Your task to perform on an android device: change timer sound Image 0: 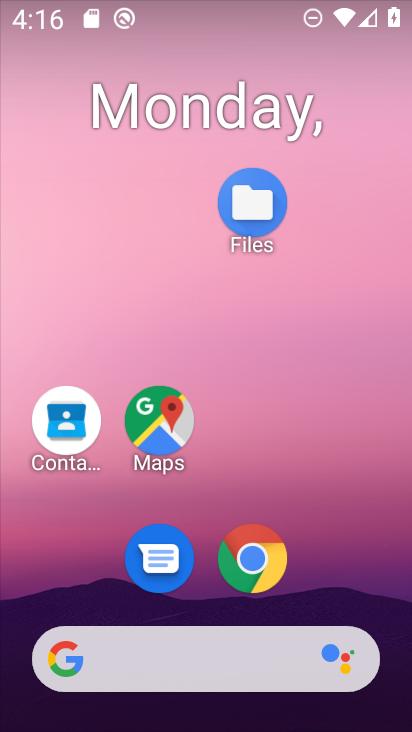
Step 0: drag from (283, 673) to (258, 132)
Your task to perform on an android device: change timer sound Image 1: 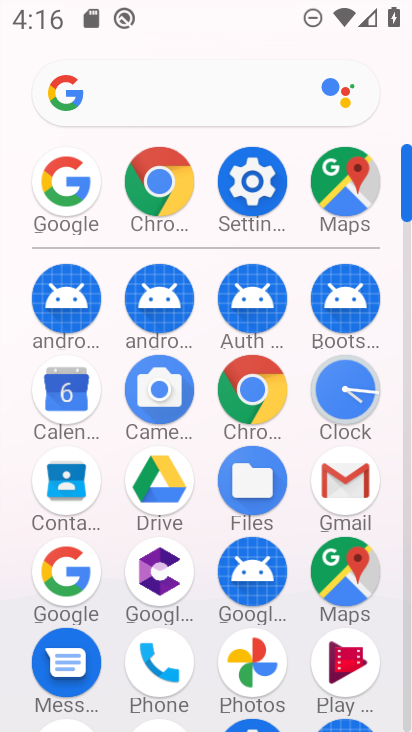
Step 1: click (357, 422)
Your task to perform on an android device: change timer sound Image 2: 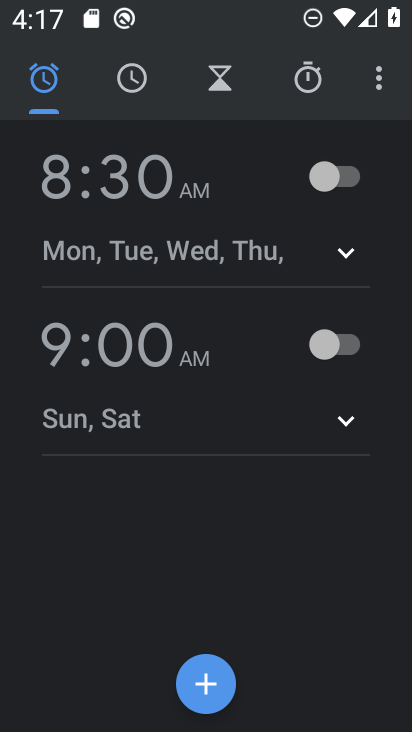
Step 2: click (376, 89)
Your task to perform on an android device: change timer sound Image 3: 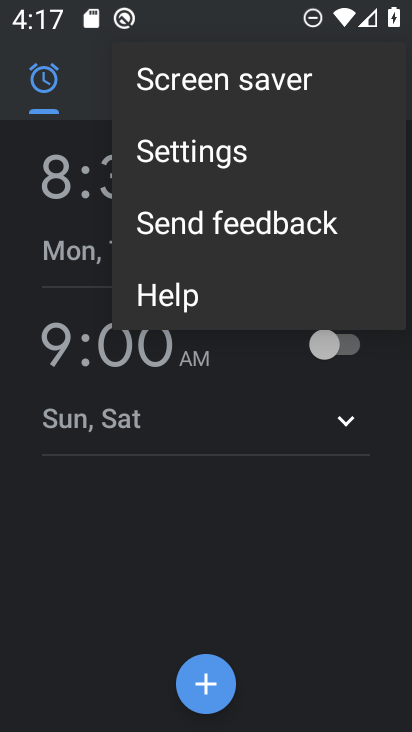
Step 3: click (246, 164)
Your task to perform on an android device: change timer sound Image 4: 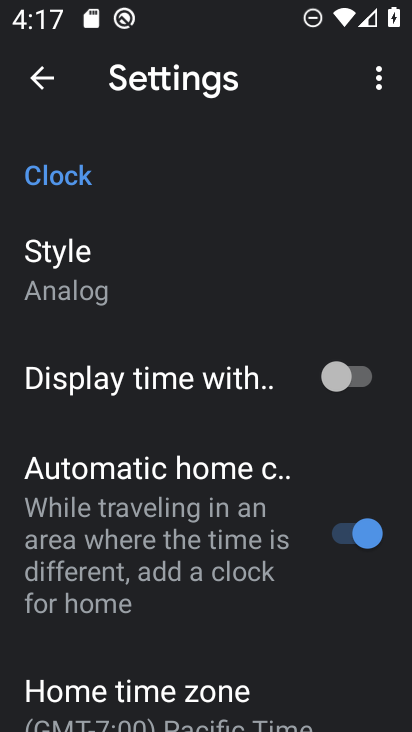
Step 4: drag from (185, 560) to (196, 225)
Your task to perform on an android device: change timer sound Image 5: 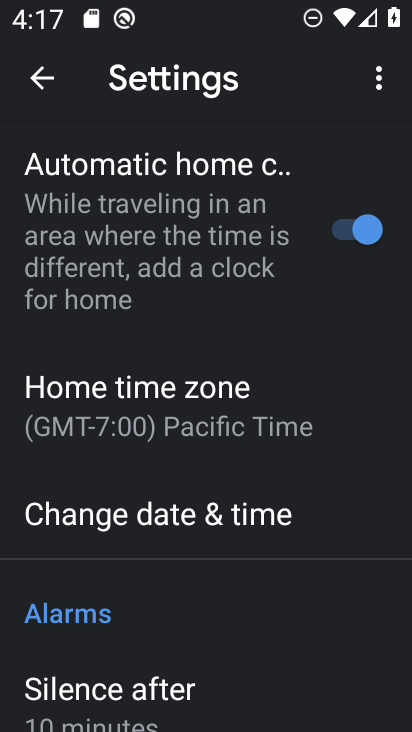
Step 5: drag from (226, 574) to (200, 366)
Your task to perform on an android device: change timer sound Image 6: 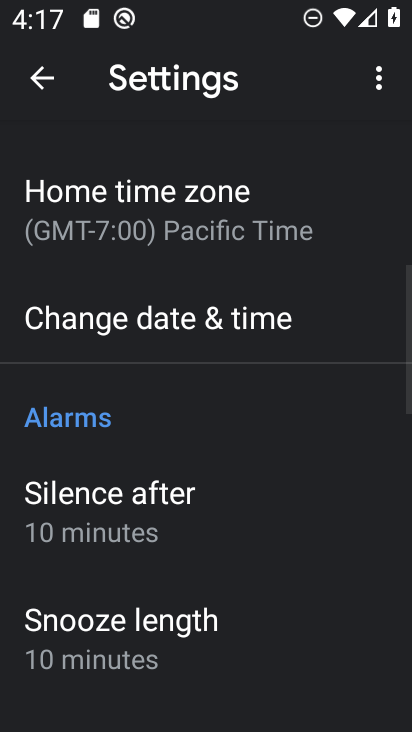
Step 6: drag from (211, 627) to (203, 438)
Your task to perform on an android device: change timer sound Image 7: 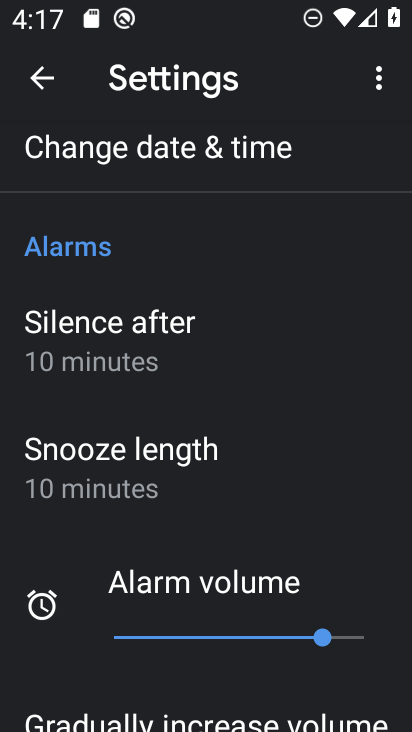
Step 7: drag from (233, 577) to (221, 362)
Your task to perform on an android device: change timer sound Image 8: 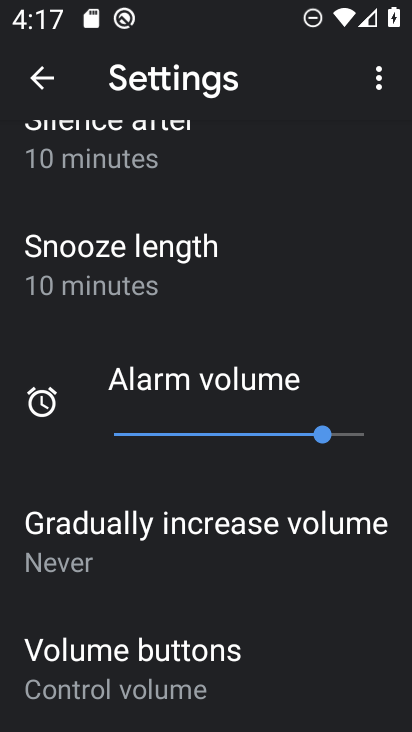
Step 8: drag from (242, 579) to (244, 375)
Your task to perform on an android device: change timer sound Image 9: 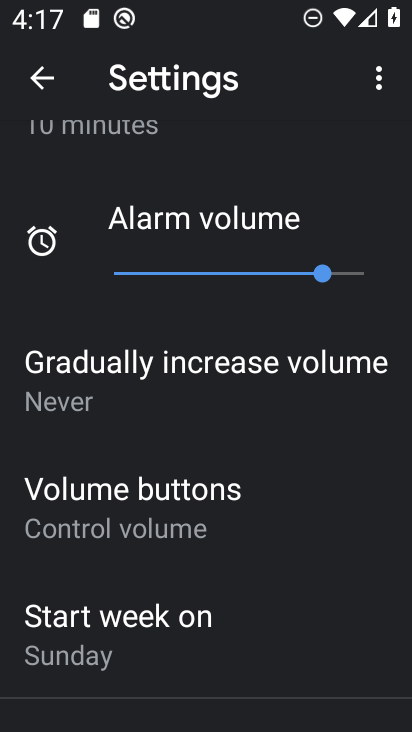
Step 9: drag from (246, 568) to (263, 344)
Your task to perform on an android device: change timer sound Image 10: 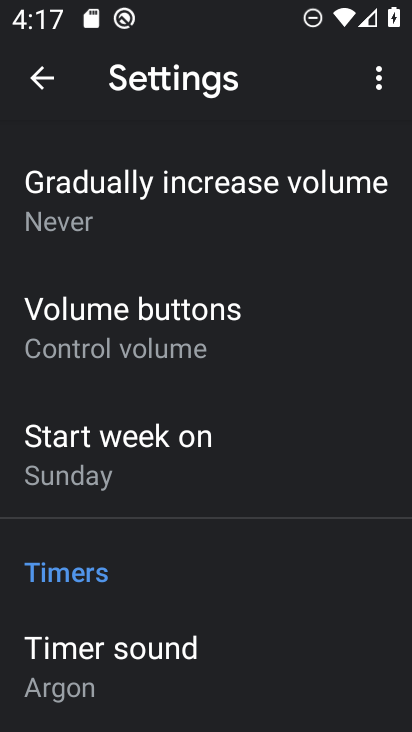
Step 10: click (197, 663)
Your task to perform on an android device: change timer sound Image 11: 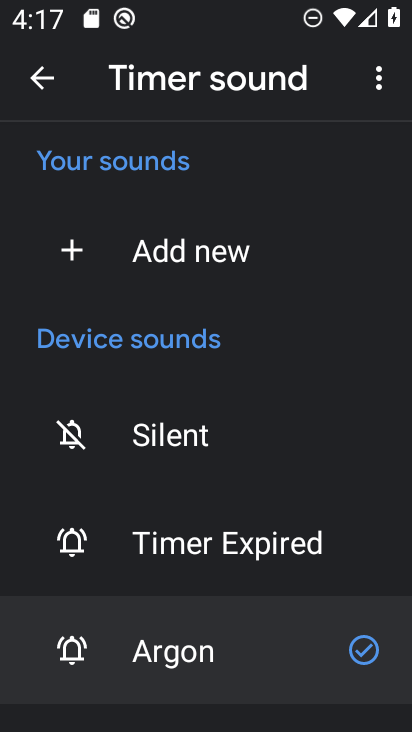
Step 11: click (203, 544)
Your task to perform on an android device: change timer sound Image 12: 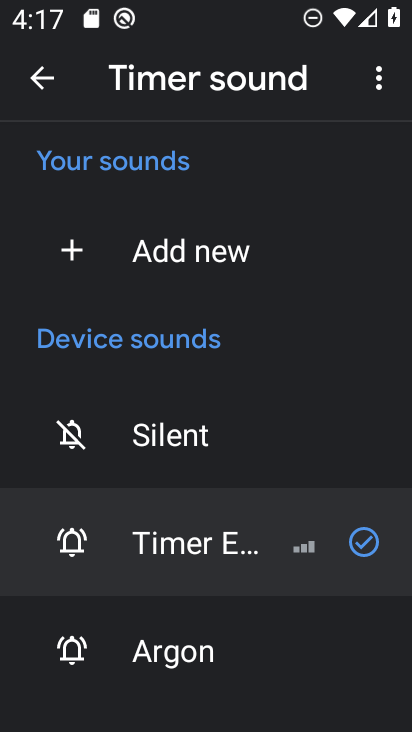
Step 12: task complete